Your task to perform on an android device: Go to CNN.com Image 0: 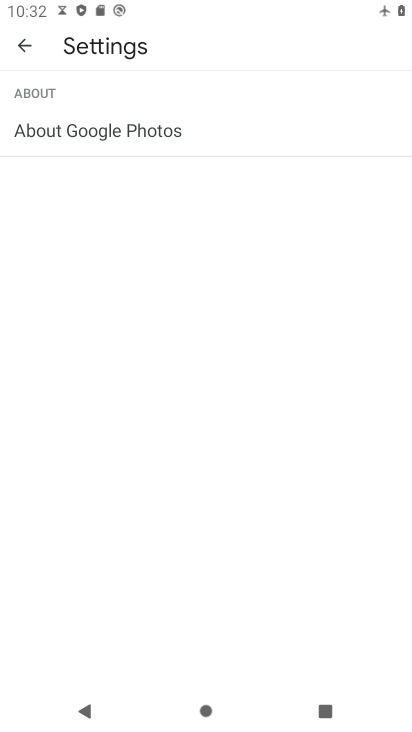
Step 0: press back button
Your task to perform on an android device: Go to CNN.com Image 1: 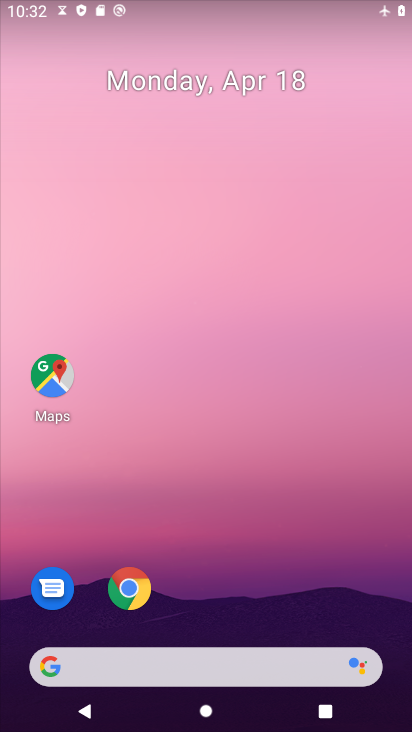
Step 1: drag from (320, 590) to (187, 0)
Your task to perform on an android device: Go to CNN.com Image 2: 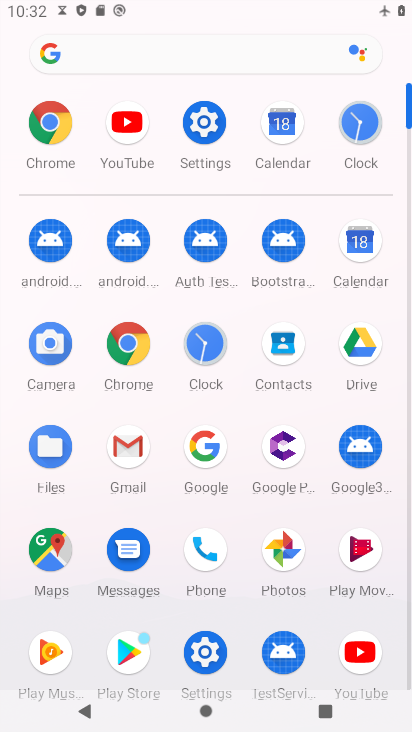
Step 2: click (42, 146)
Your task to perform on an android device: Go to CNN.com Image 3: 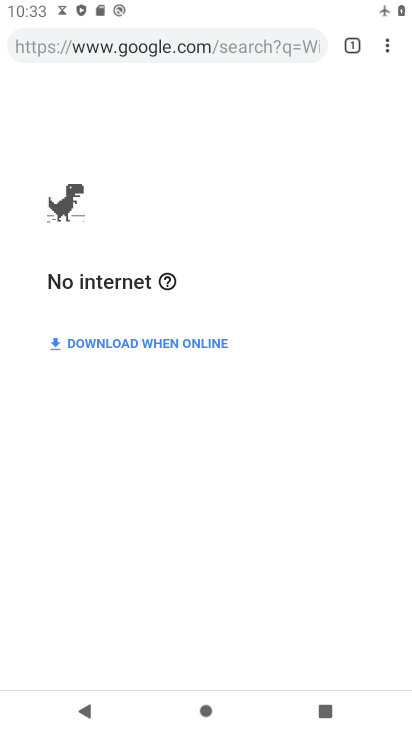
Step 3: click (128, 38)
Your task to perform on an android device: Go to CNN.com Image 4: 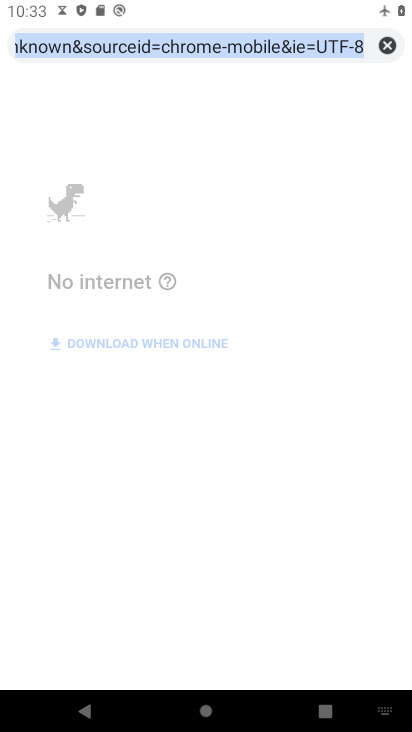
Step 4: click (388, 43)
Your task to perform on an android device: Go to CNN.com Image 5: 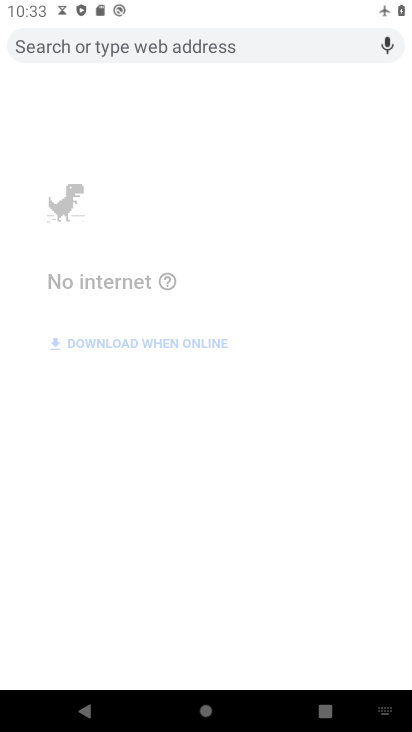
Step 5: type "CNN.com"
Your task to perform on an android device: Go to CNN.com Image 6: 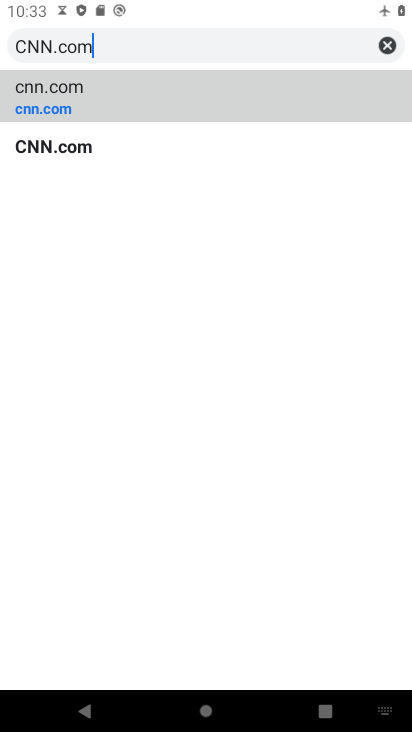
Step 6: click (146, 84)
Your task to perform on an android device: Go to CNN.com Image 7: 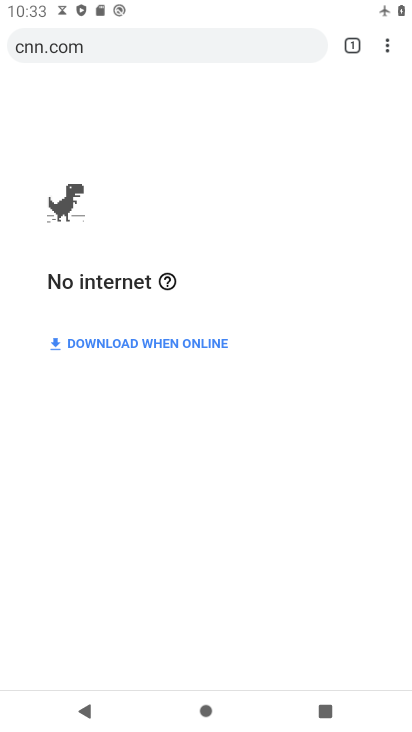
Step 7: task complete